Your task to perform on an android device: What's on my calendar today? Image 0: 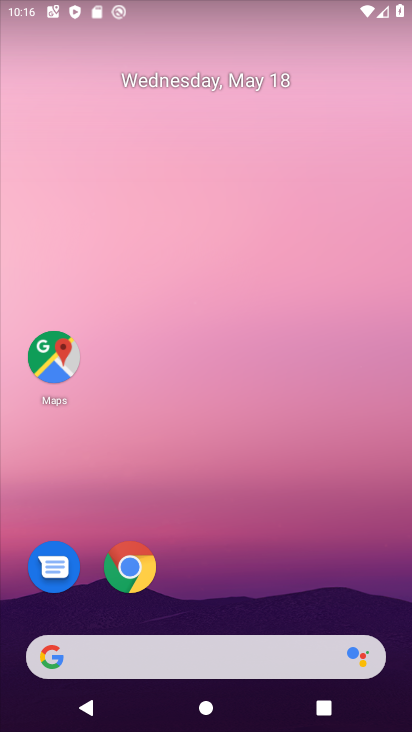
Step 0: drag from (207, 677) to (357, 169)
Your task to perform on an android device: What's on my calendar today? Image 1: 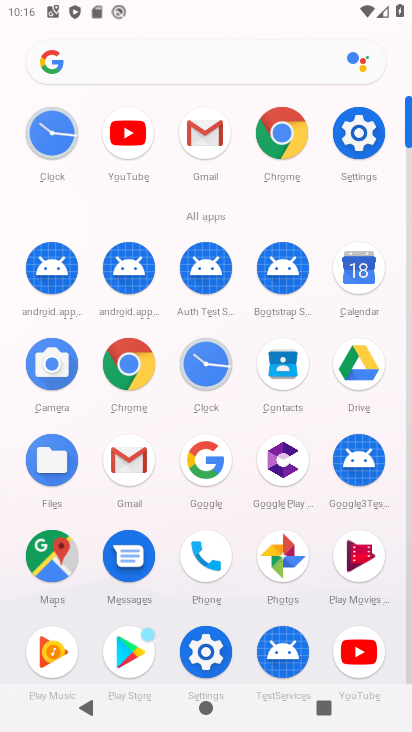
Step 1: click (336, 279)
Your task to perform on an android device: What's on my calendar today? Image 2: 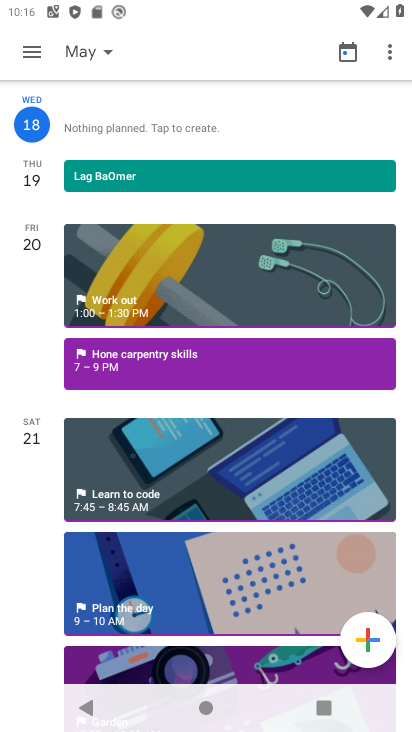
Step 2: click (33, 183)
Your task to perform on an android device: What's on my calendar today? Image 3: 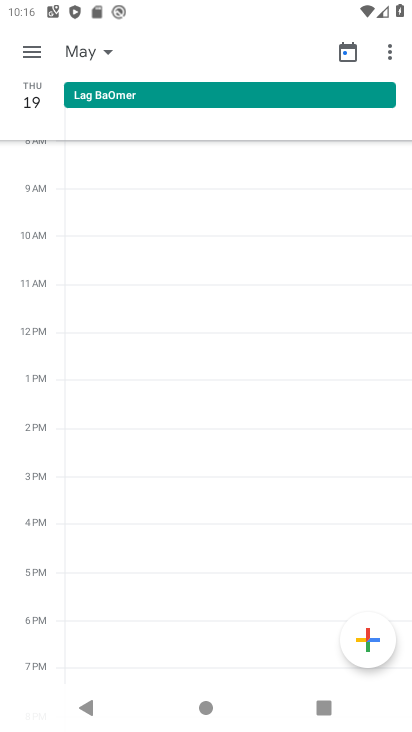
Step 3: task complete